Your task to perform on an android device: move an email to a new category in the gmail app Image 0: 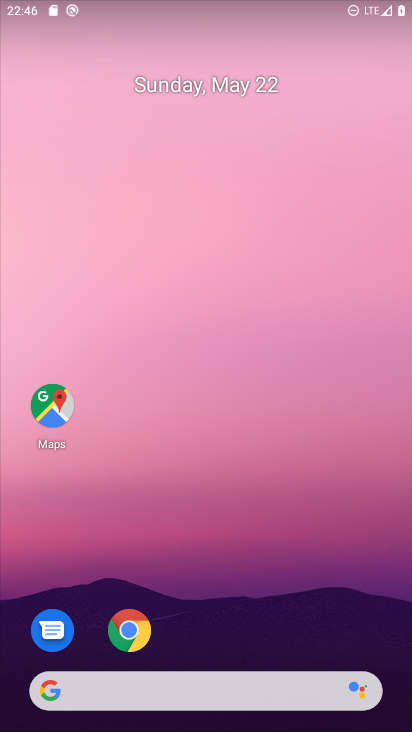
Step 0: press home button
Your task to perform on an android device: move an email to a new category in the gmail app Image 1: 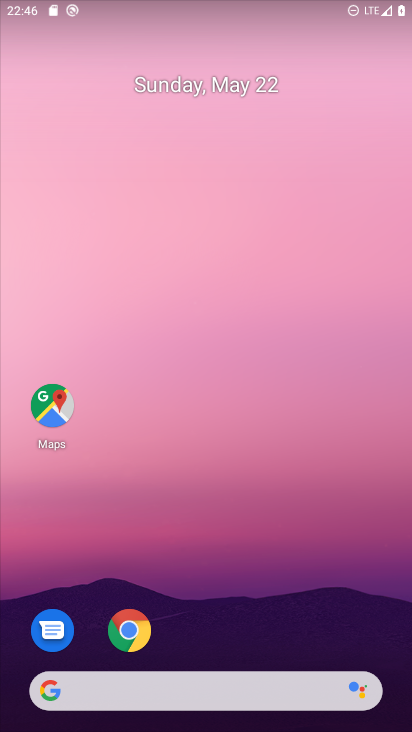
Step 1: drag from (174, 695) to (345, 68)
Your task to perform on an android device: move an email to a new category in the gmail app Image 2: 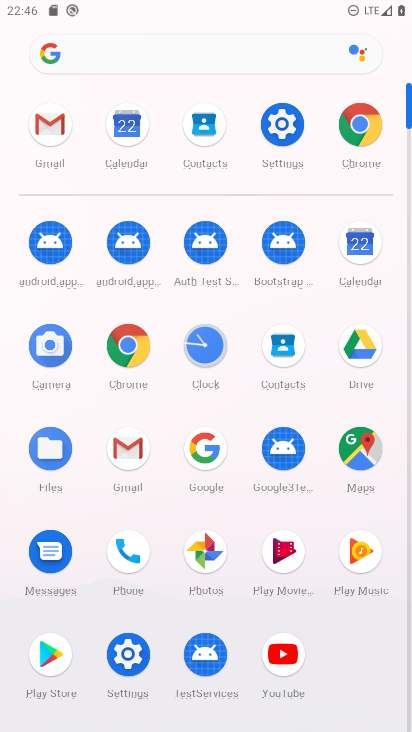
Step 2: click (58, 133)
Your task to perform on an android device: move an email to a new category in the gmail app Image 3: 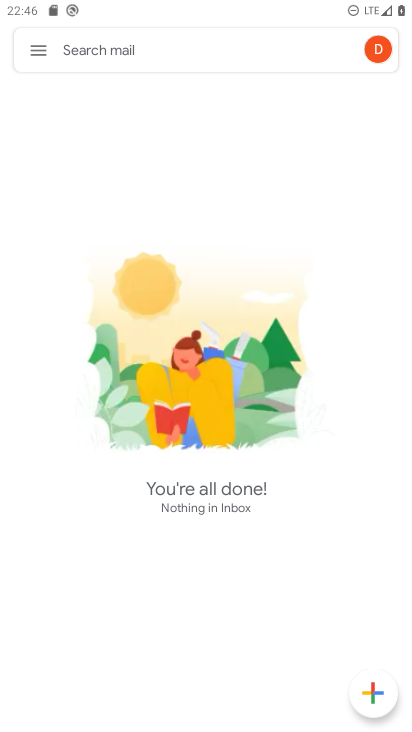
Step 3: task complete